Your task to perform on an android device: turn notification dots off Image 0: 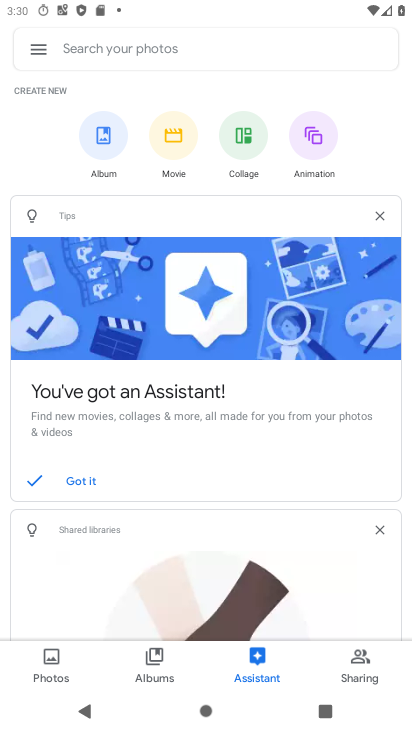
Step 0: press home button
Your task to perform on an android device: turn notification dots off Image 1: 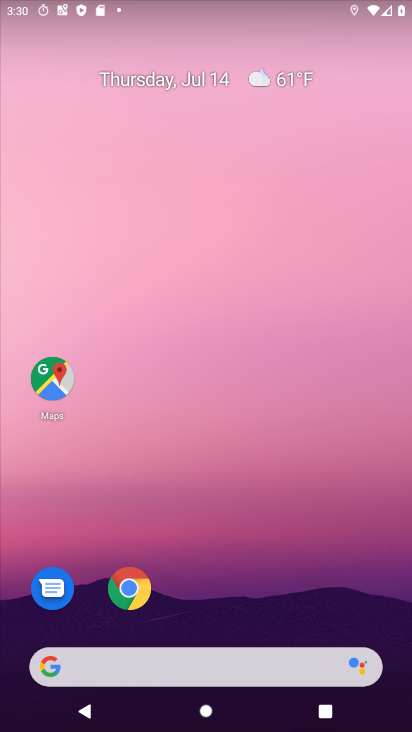
Step 1: drag from (180, 672) to (270, 206)
Your task to perform on an android device: turn notification dots off Image 2: 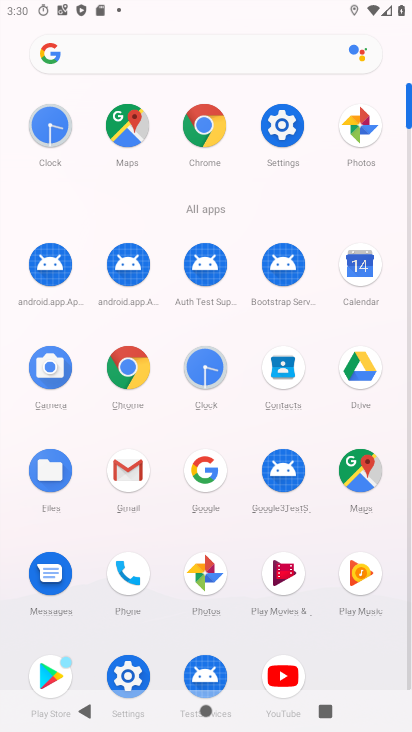
Step 2: drag from (163, 639) to (188, 400)
Your task to perform on an android device: turn notification dots off Image 3: 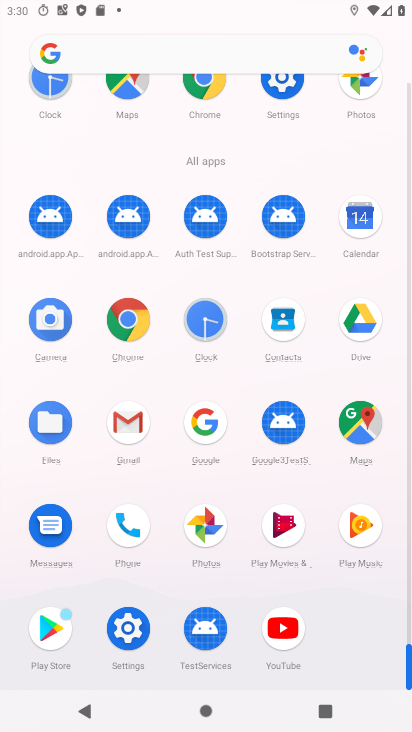
Step 3: click (129, 624)
Your task to perform on an android device: turn notification dots off Image 4: 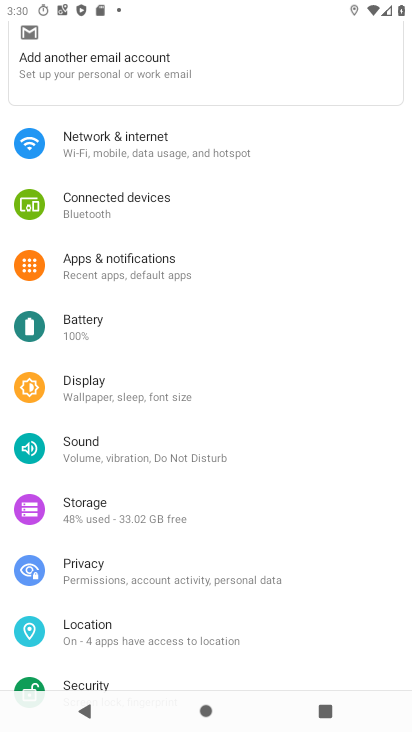
Step 4: click (130, 264)
Your task to perform on an android device: turn notification dots off Image 5: 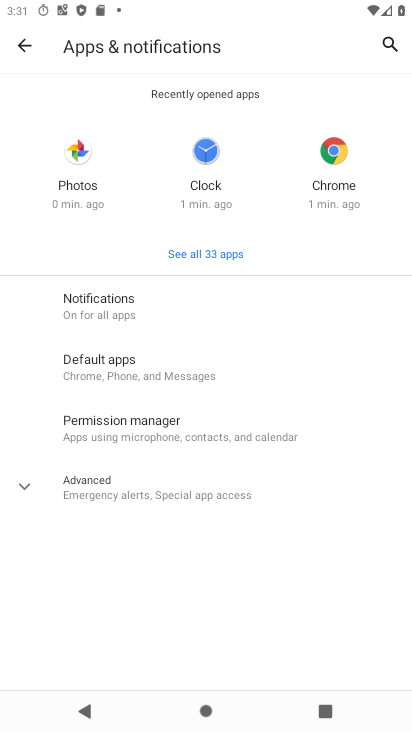
Step 5: click (109, 304)
Your task to perform on an android device: turn notification dots off Image 6: 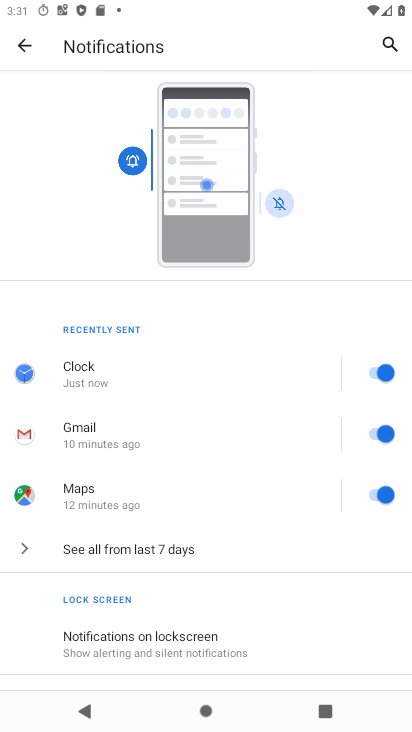
Step 6: drag from (148, 647) to (195, 533)
Your task to perform on an android device: turn notification dots off Image 7: 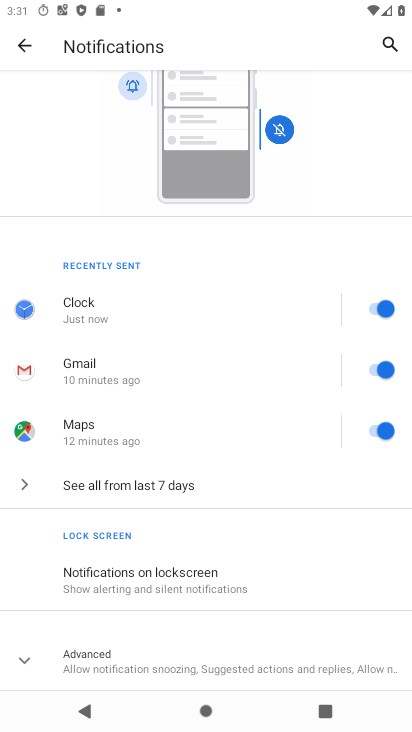
Step 7: click (121, 664)
Your task to perform on an android device: turn notification dots off Image 8: 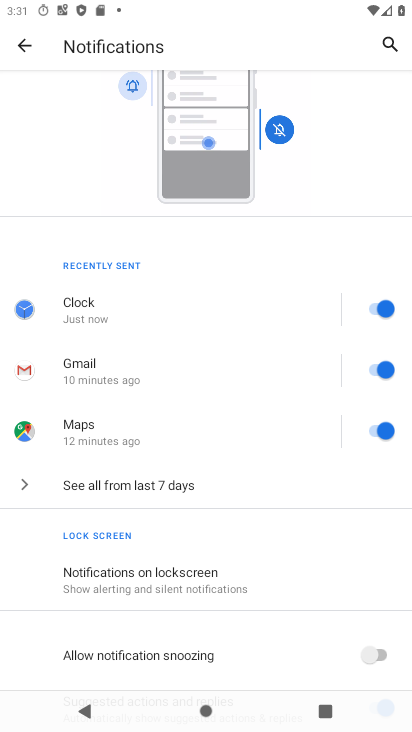
Step 8: drag from (163, 636) to (256, 497)
Your task to perform on an android device: turn notification dots off Image 9: 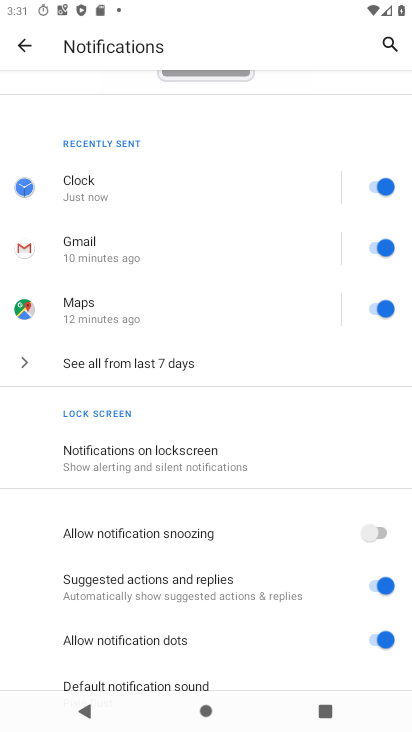
Step 9: click (380, 634)
Your task to perform on an android device: turn notification dots off Image 10: 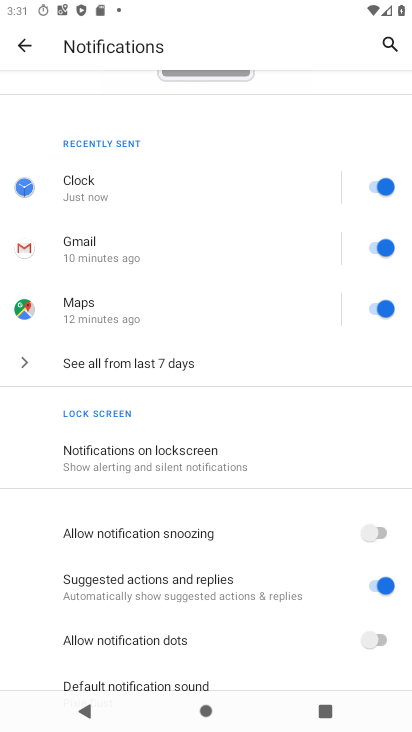
Step 10: task complete